Your task to perform on an android device: delete browsing data in the chrome app Image 0: 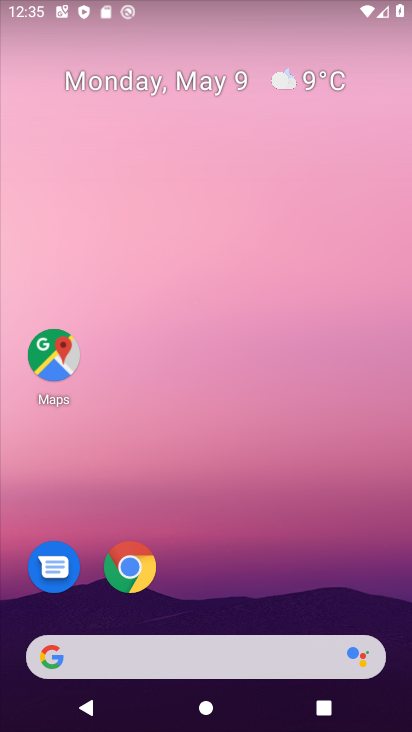
Step 0: drag from (263, 697) to (271, 209)
Your task to perform on an android device: delete browsing data in the chrome app Image 1: 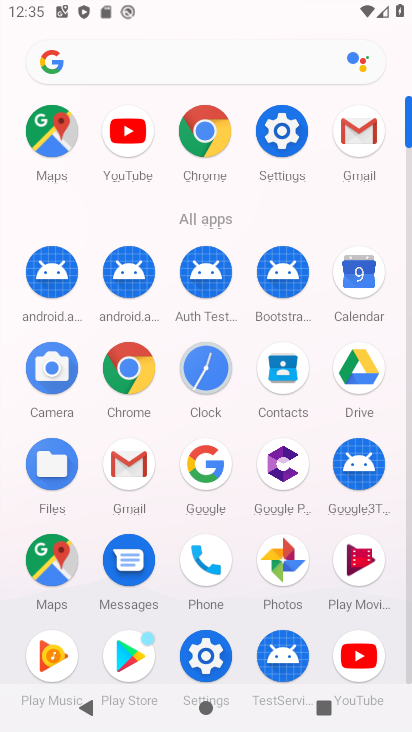
Step 1: click (204, 152)
Your task to perform on an android device: delete browsing data in the chrome app Image 2: 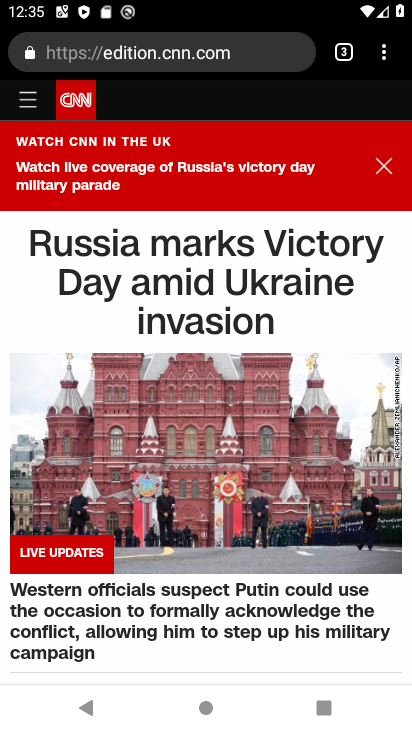
Step 2: click (374, 45)
Your task to perform on an android device: delete browsing data in the chrome app Image 3: 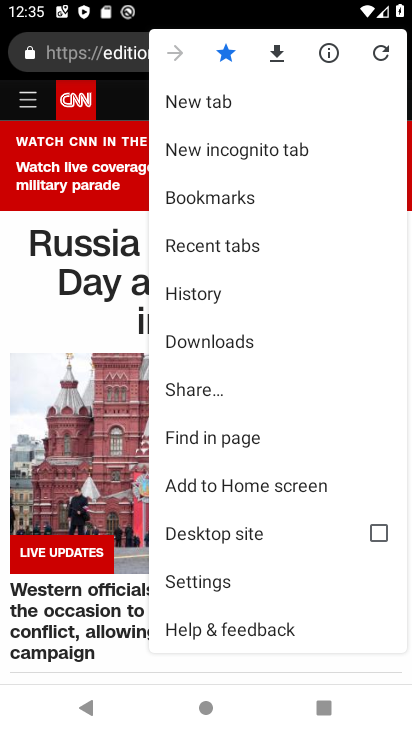
Step 3: click (200, 582)
Your task to perform on an android device: delete browsing data in the chrome app Image 4: 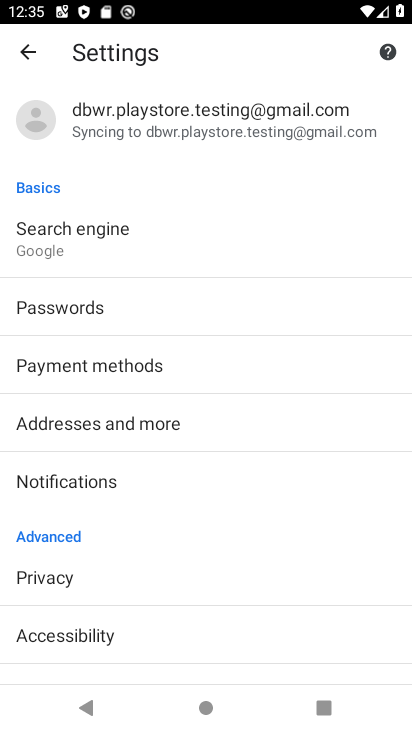
Step 4: click (110, 565)
Your task to perform on an android device: delete browsing data in the chrome app Image 5: 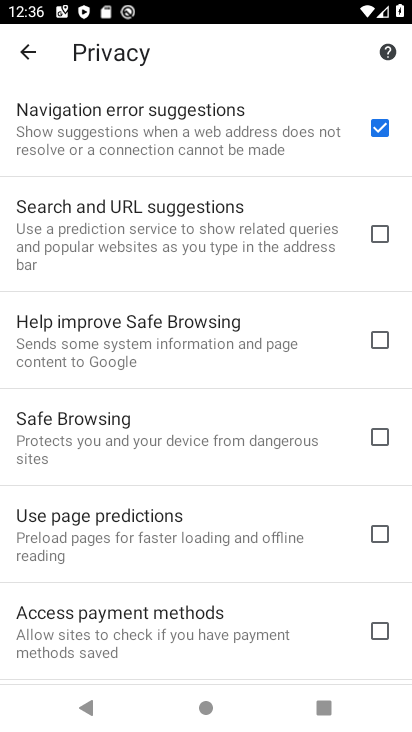
Step 5: drag from (110, 565) to (232, 250)
Your task to perform on an android device: delete browsing data in the chrome app Image 6: 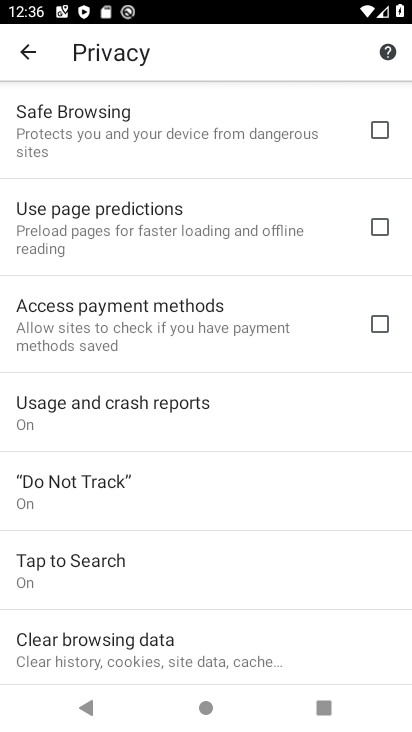
Step 6: drag from (103, 576) to (200, 362)
Your task to perform on an android device: delete browsing data in the chrome app Image 7: 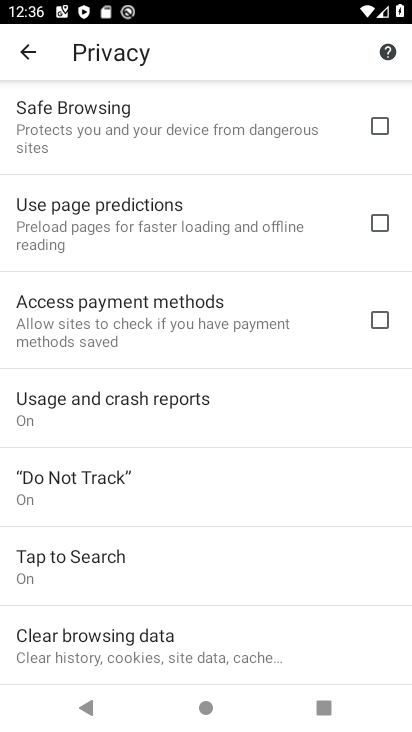
Step 7: click (88, 637)
Your task to perform on an android device: delete browsing data in the chrome app Image 8: 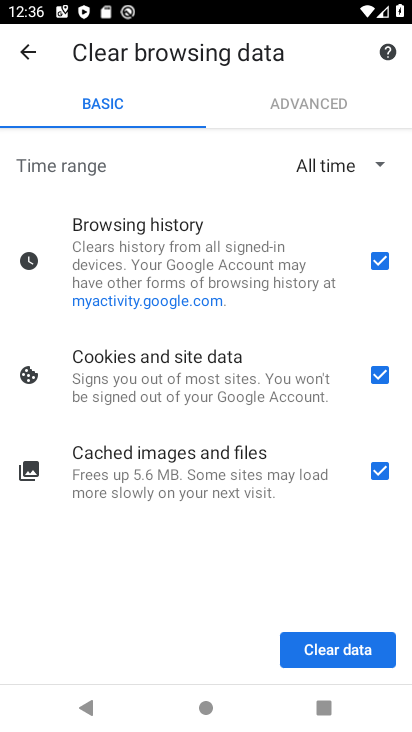
Step 8: click (348, 654)
Your task to perform on an android device: delete browsing data in the chrome app Image 9: 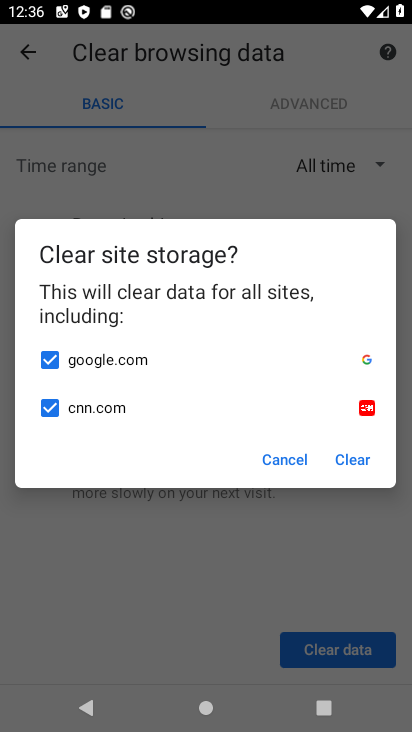
Step 9: task complete